Your task to perform on an android device: Go to display settings Image 0: 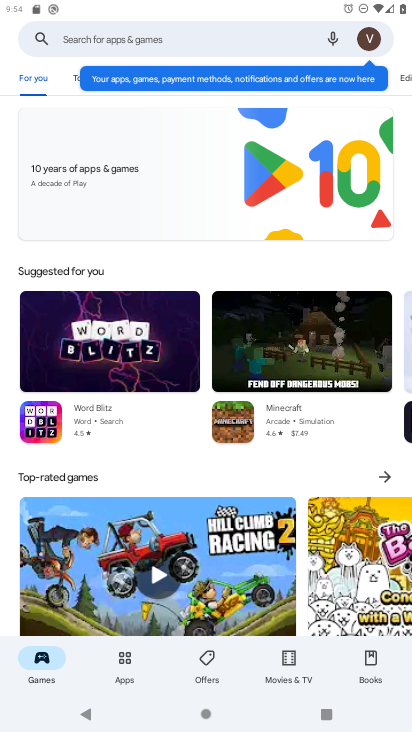
Step 0: press home button
Your task to perform on an android device: Go to display settings Image 1: 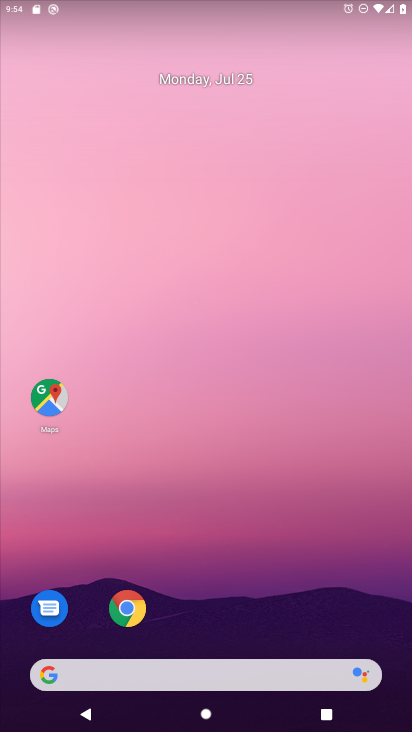
Step 1: drag from (266, 640) to (195, 200)
Your task to perform on an android device: Go to display settings Image 2: 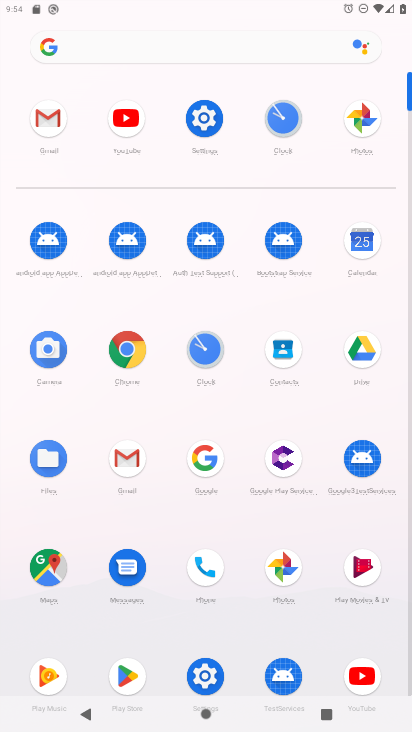
Step 2: click (181, 102)
Your task to perform on an android device: Go to display settings Image 3: 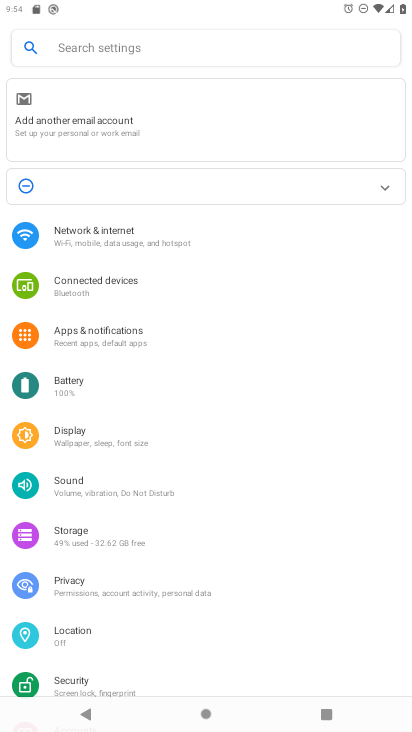
Step 3: click (117, 439)
Your task to perform on an android device: Go to display settings Image 4: 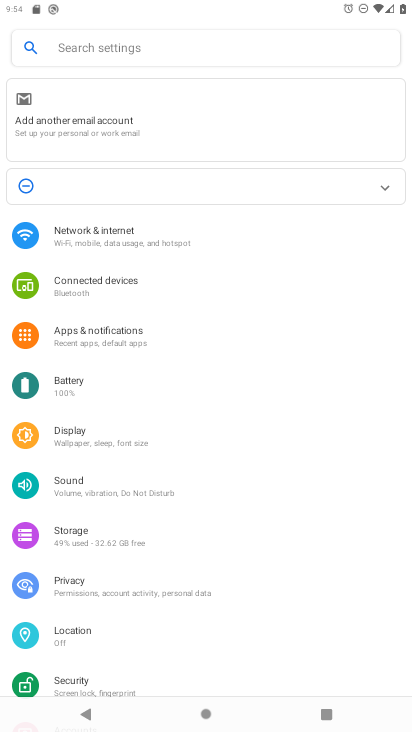
Step 4: click (117, 439)
Your task to perform on an android device: Go to display settings Image 5: 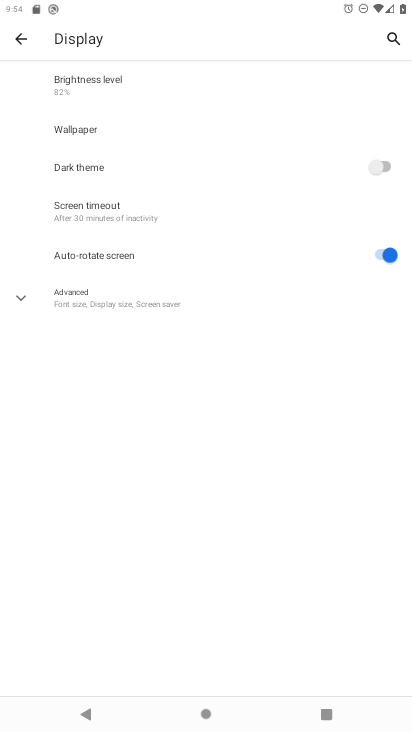
Step 5: task complete